Your task to perform on an android device: Go to Google maps Image 0: 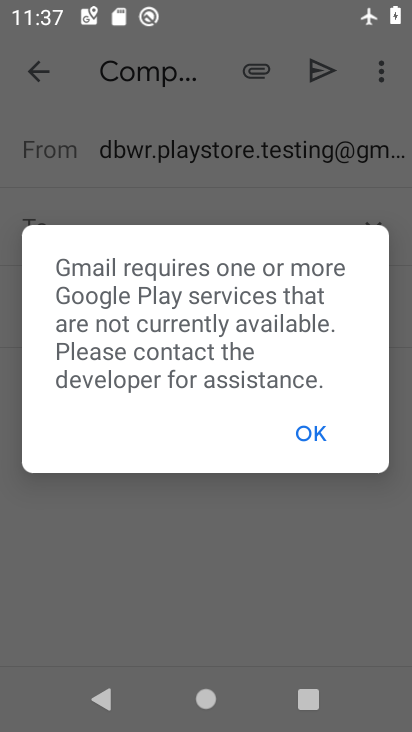
Step 0: press back button
Your task to perform on an android device: Go to Google maps Image 1: 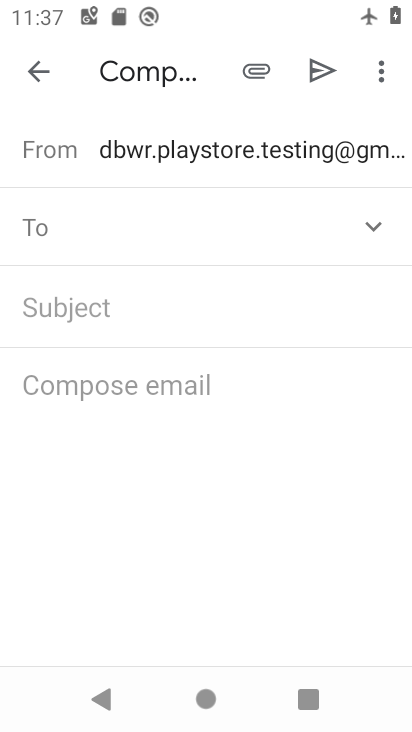
Step 1: click (40, 72)
Your task to perform on an android device: Go to Google maps Image 2: 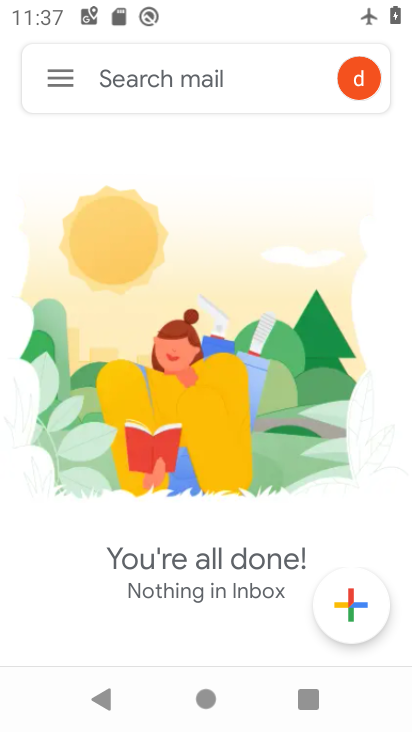
Step 2: press home button
Your task to perform on an android device: Go to Google maps Image 3: 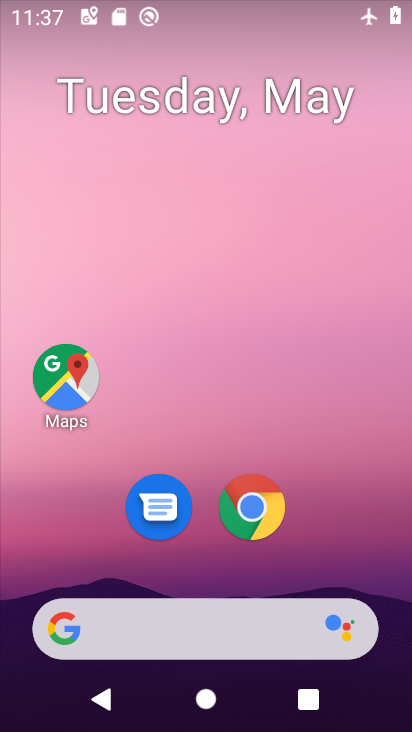
Step 3: drag from (247, 655) to (208, 260)
Your task to perform on an android device: Go to Google maps Image 4: 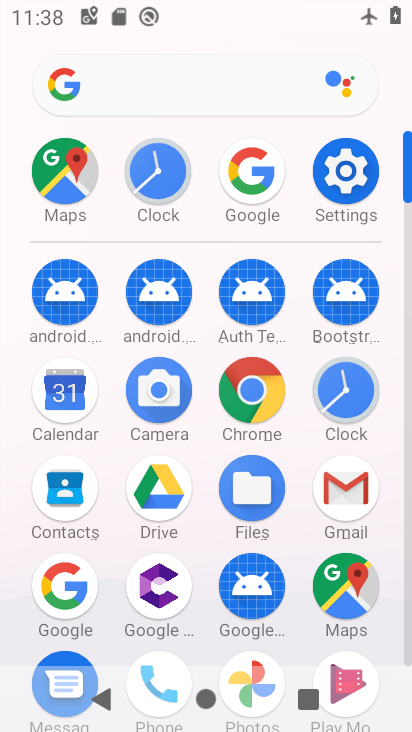
Step 4: click (331, 585)
Your task to perform on an android device: Go to Google maps Image 5: 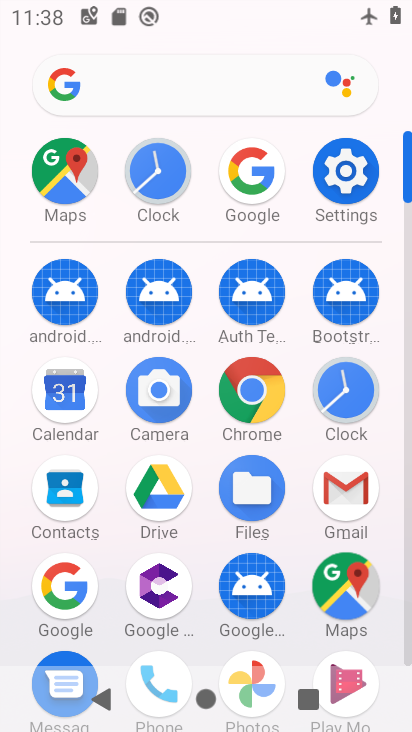
Step 5: click (333, 582)
Your task to perform on an android device: Go to Google maps Image 6: 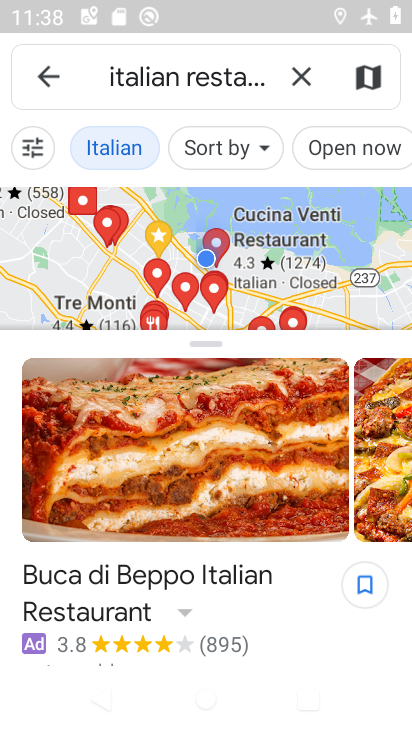
Step 6: task complete